Your task to perform on an android device: Open eBay Image 0: 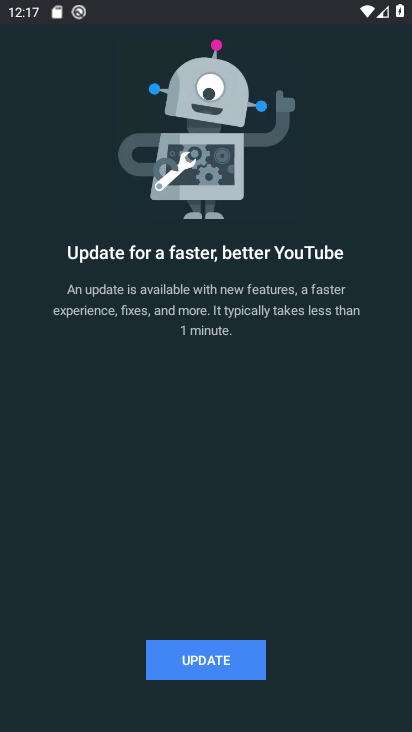
Step 0: press home button
Your task to perform on an android device: Open eBay Image 1: 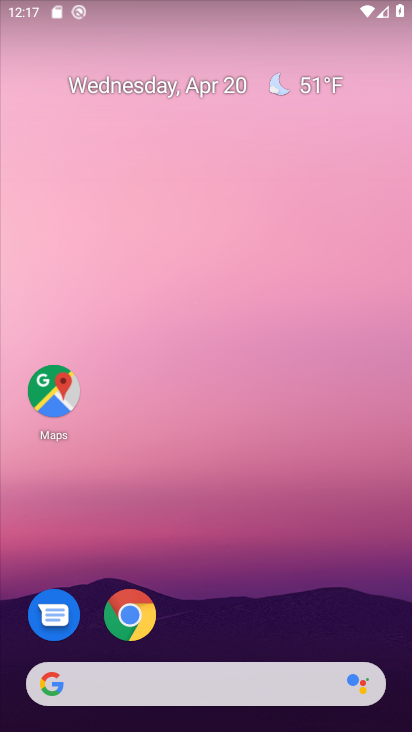
Step 1: click (142, 619)
Your task to perform on an android device: Open eBay Image 2: 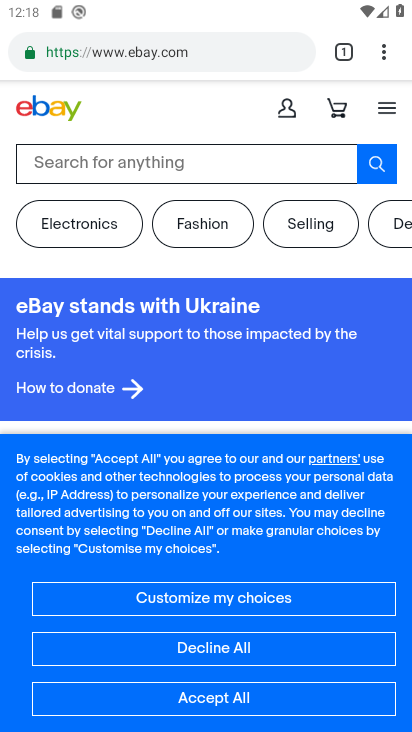
Step 2: task complete